Your task to perform on an android device: see tabs open on other devices in the chrome app Image 0: 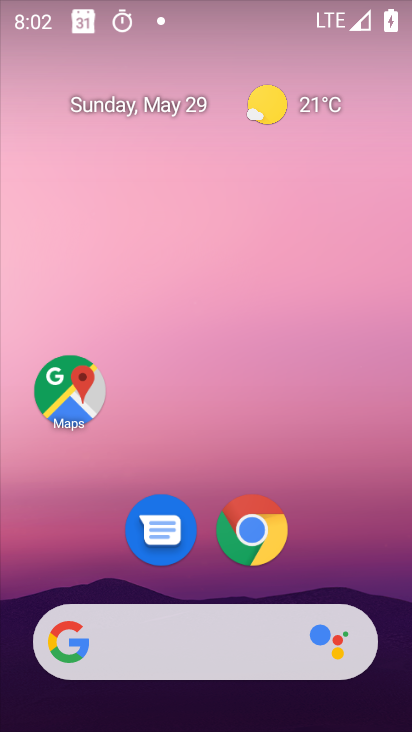
Step 0: drag from (209, 686) to (249, 253)
Your task to perform on an android device: see tabs open on other devices in the chrome app Image 1: 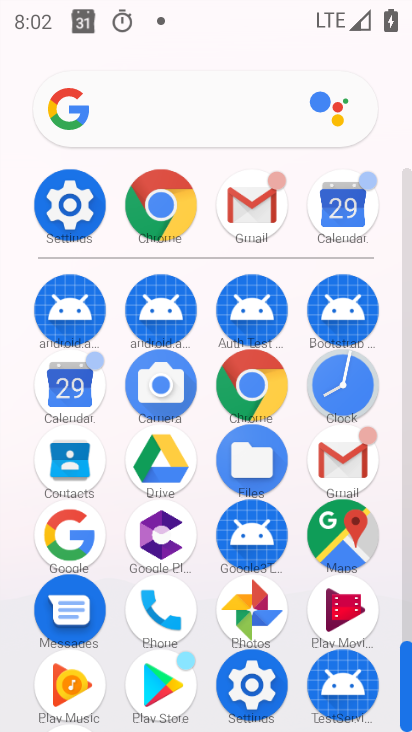
Step 1: click (265, 413)
Your task to perform on an android device: see tabs open on other devices in the chrome app Image 2: 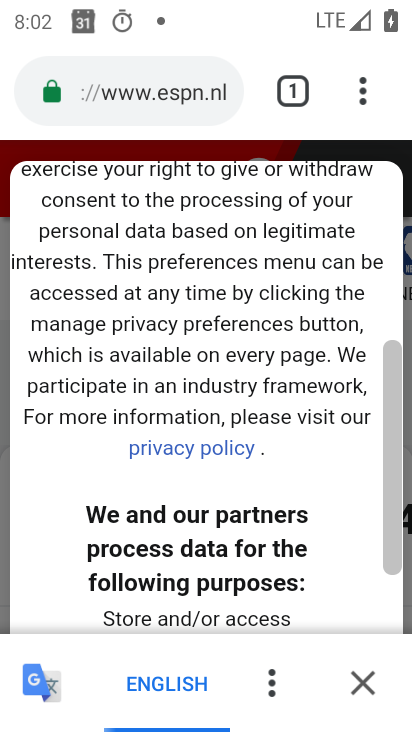
Step 2: click (364, 111)
Your task to perform on an android device: see tabs open on other devices in the chrome app Image 3: 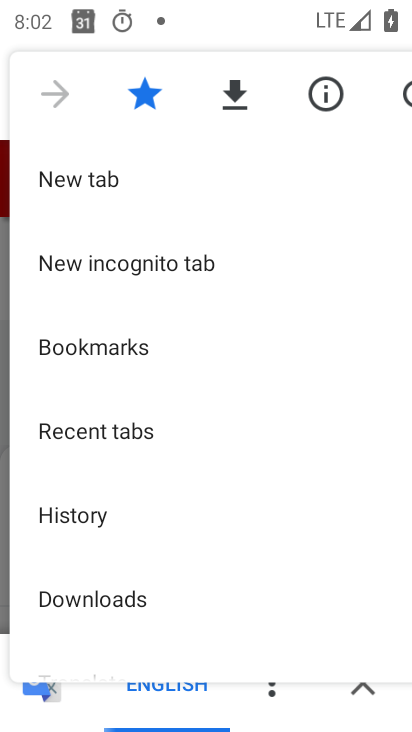
Step 3: drag from (216, 524) to (265, 295)
Your task to perform on an android device: see tabs open on other devices in the chrome app Image 4: 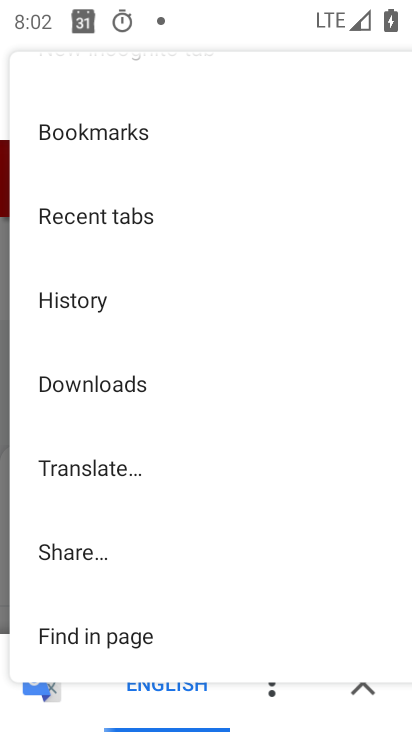
Step 4: drag from (170, 553) to (155, 323)
Your task to perform on an android device: see tabs open on other devices in the chrome app Image 5: 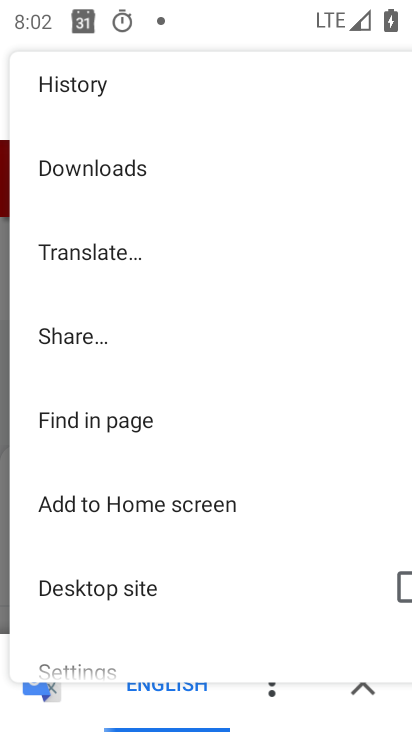
Step 5: press back button
Your task to perform on an android device: see tabs open on other devices in the chrome app Image 6: 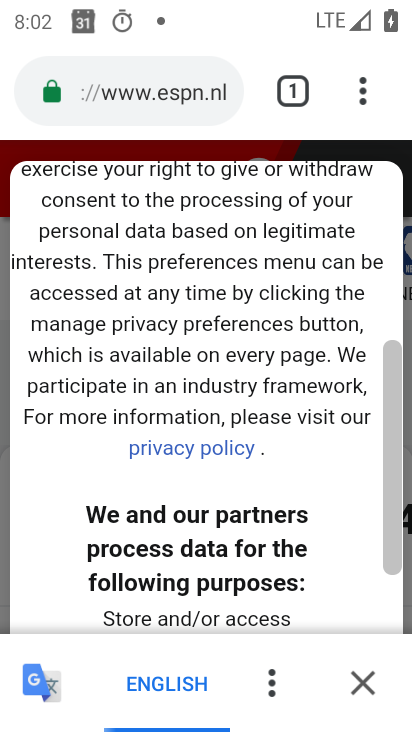
Step 6: click (296, 105)
Your task to perform on an android device: see tabs open on other devices in the chrome app Image 7: 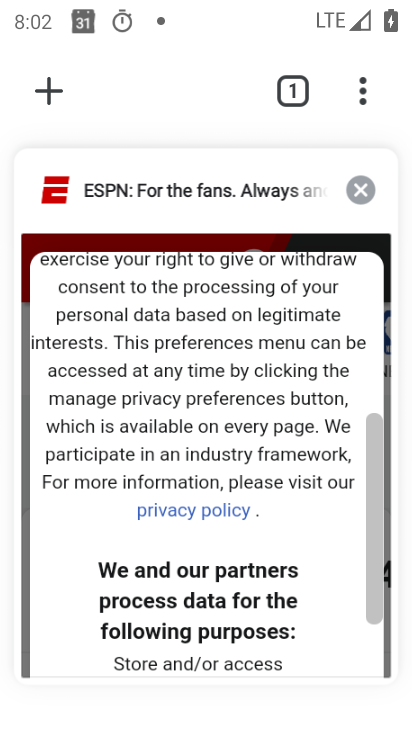
Step 7: click (40, 85)
Your task to perform on an android device: see tabs open on other devices in the chrome app Image 8: 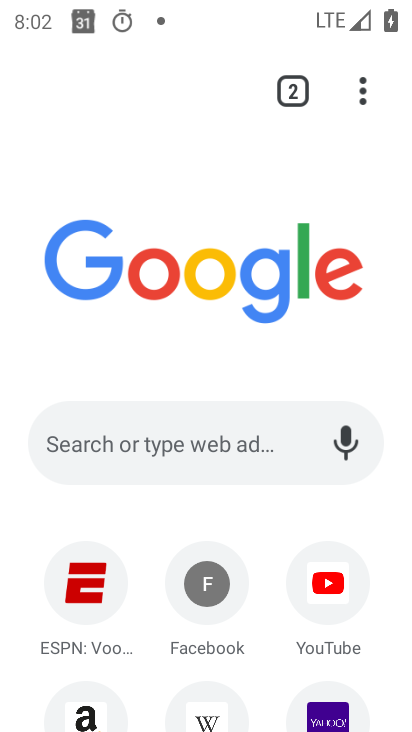
Step 8: task complete